Your task to perform on an android device: open chrome privacy settings Image 0: 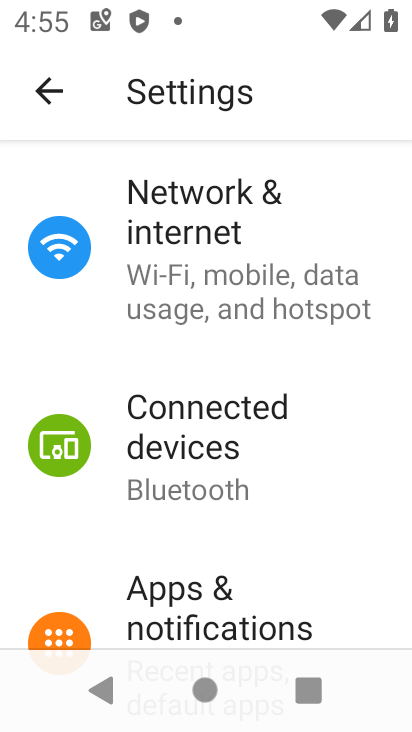
Step 0: press home button
Your task to perform on an android device: open chrome privacy settings Image 1: 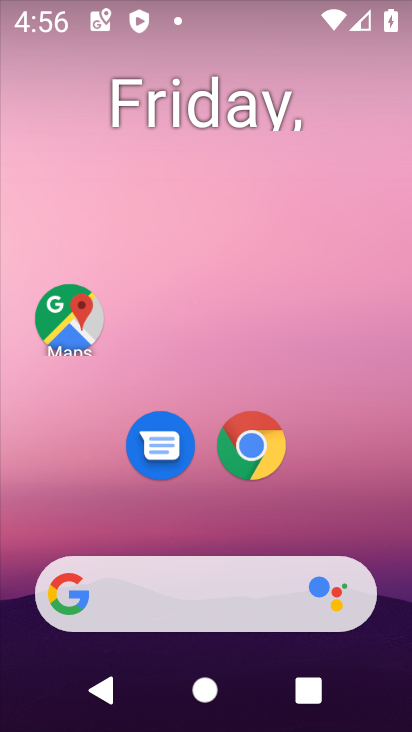
Step 1: drag from (329, 498) to (339, 204)
Your task to perform on an android device: open chrome privacy settings Image 2: 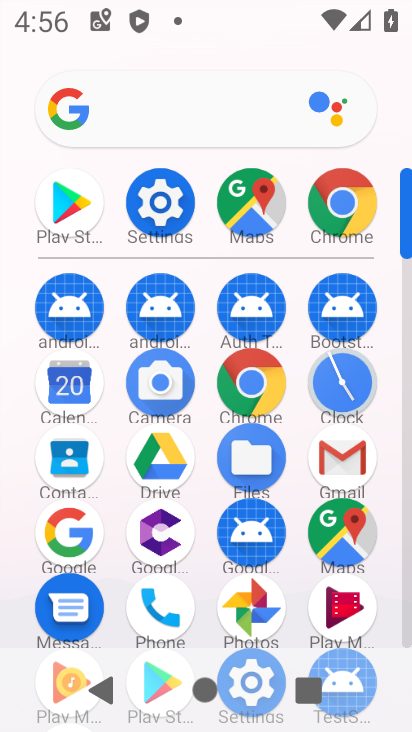
Step 2: click (345, 241)
Your task to perform on an android device: open chrome privacy settings Image 3: 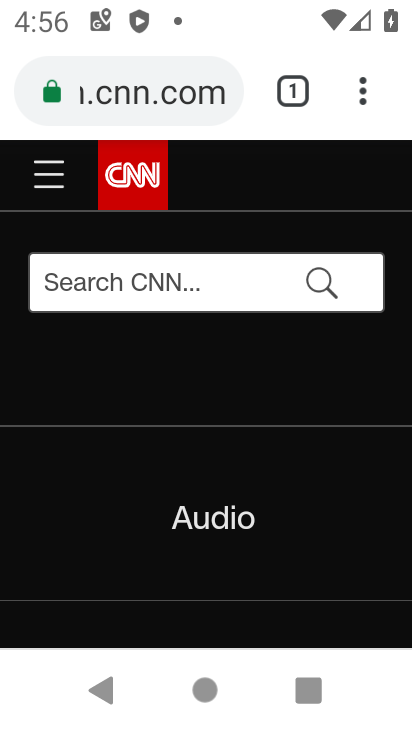
Step 3: click (362, 103)
Your task to perform on an android device: open chrome privacy settings Image 4: 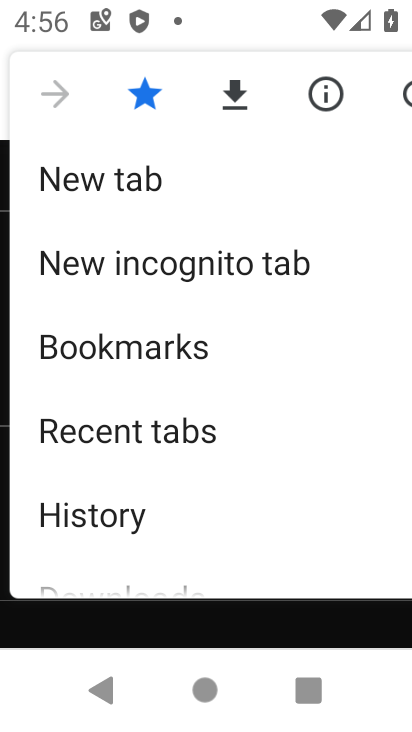
Step 4: drag from (238, 526) to (248, 139)
Your task to perform on an android device: open chrome privacy settings Image 5: 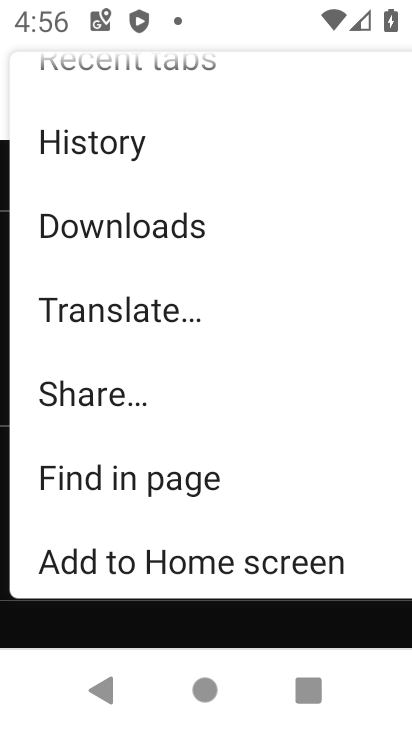
Step 5: drag from (200, 537) to (226, 252)
Your task to perform on an android device: open chrome privacy settings Image 6: 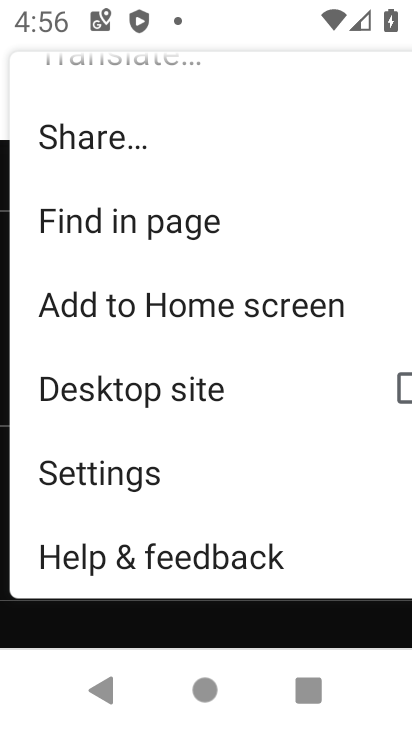
Step 6: click (183, 455)
Your task to perform on an android device: open chrome privacy settings Image 7: 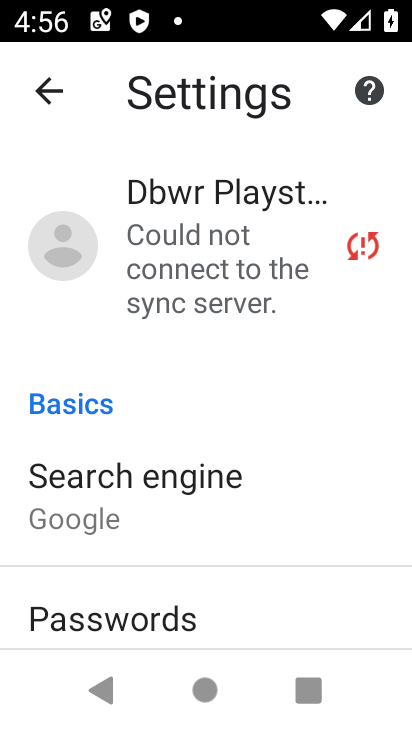
Step 7: drag from (230, 554) to (260, 257)
Your task to perform on an android device: open chrome privacy settings Image 8: 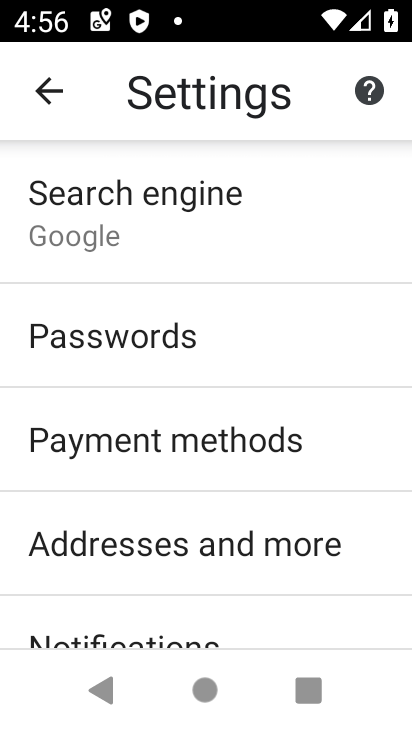
Step 8: drag from (261, 611) to (324, 332)
Your task to perform on an android device: open chrome privacy settings Image 9: 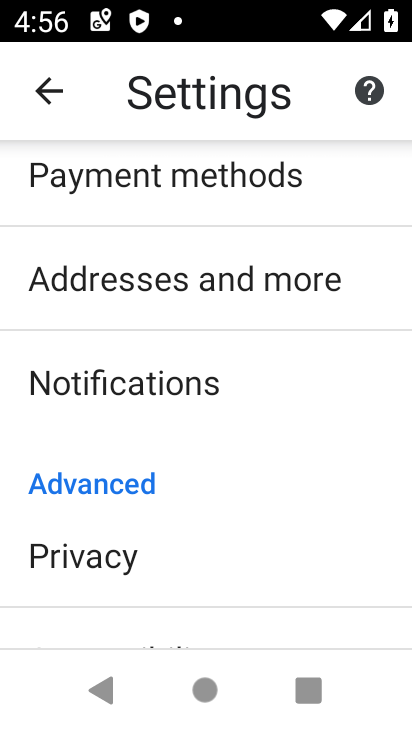
Step 9: click (239, 540)
Your task to perform on an android device: open chrome privacy settings Image 10: 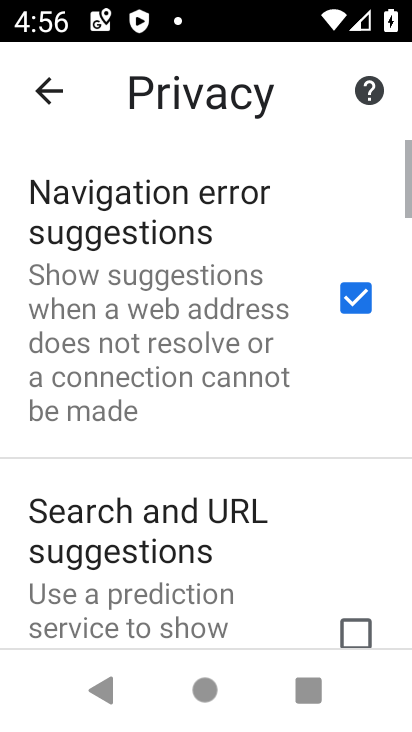
Step 10: task complete